Your task to perform on an android device: turn notification dots on Image 0: 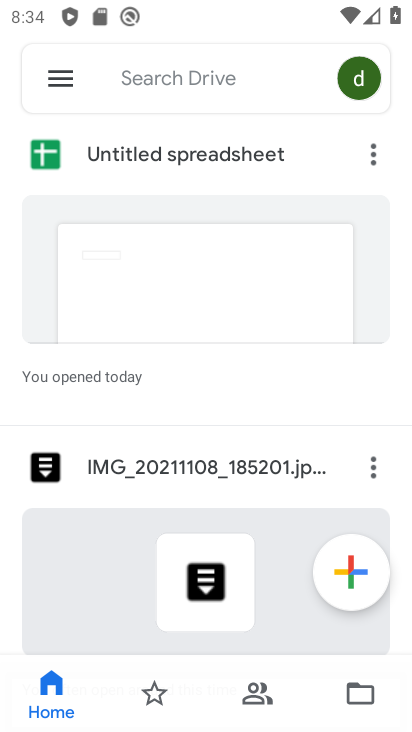
Step 0: press home button
Your task to perform on an android device: turn notification dots on Image 1: 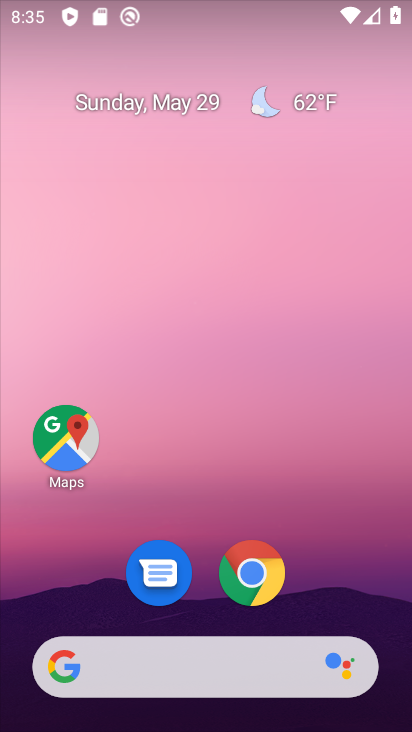
Step 1: drag from (353, 553) to (332, 195)
Your task to perform on an android device: turn notification dots on Image 2: 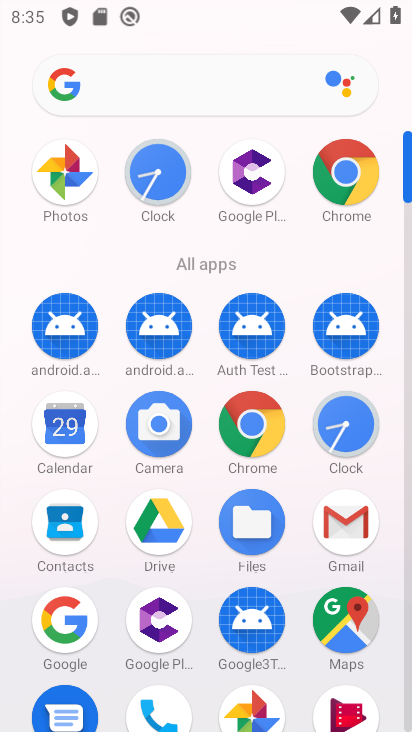
Step 2: drag from (203, 685) to (302, 21)
Your task to perform on an android device: turn notification dots on Image 3: 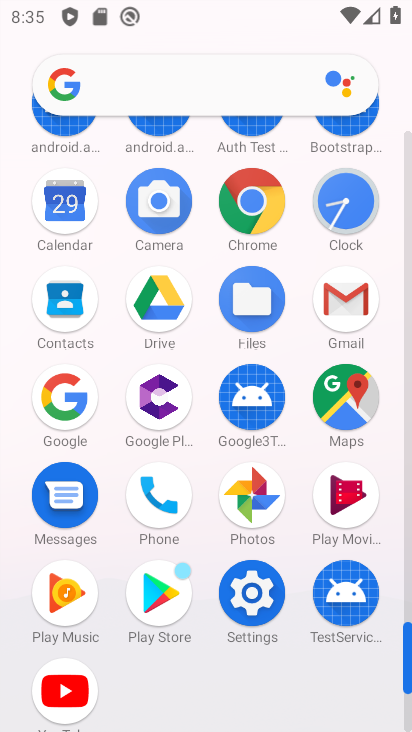
Step 3: click (253, 601)
Your task to perform on an android device: turn notification dots on Image 4: 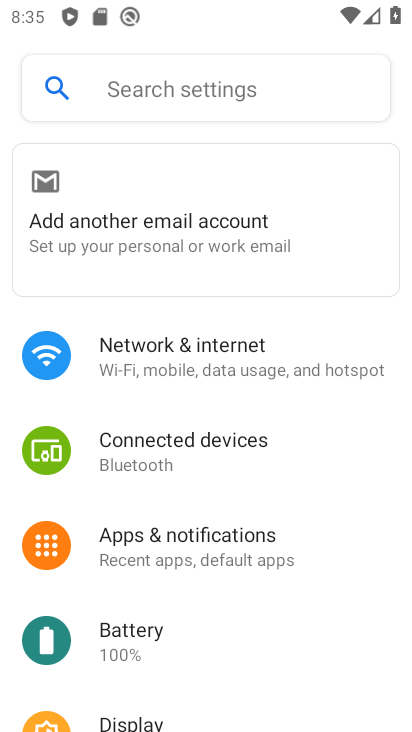
Step 4: drag from (318, 686) to (249, 92)
Your task to perform on an android device: turn notification dots on Image 5: 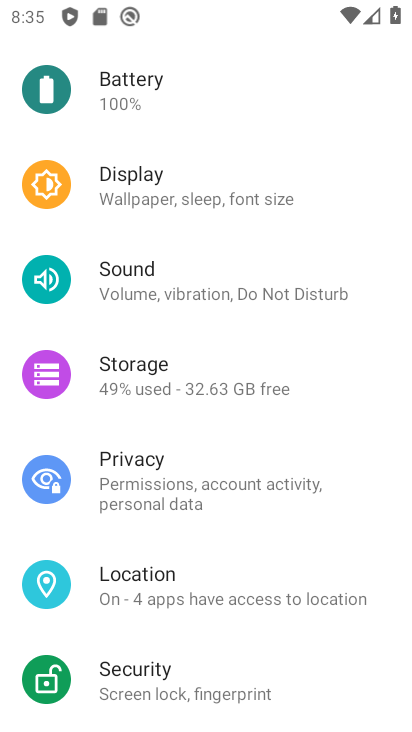
Step 5: drag from (301, 122) to (303, 397)
Your task to perform on an android device: turn notification dots on Image 6: 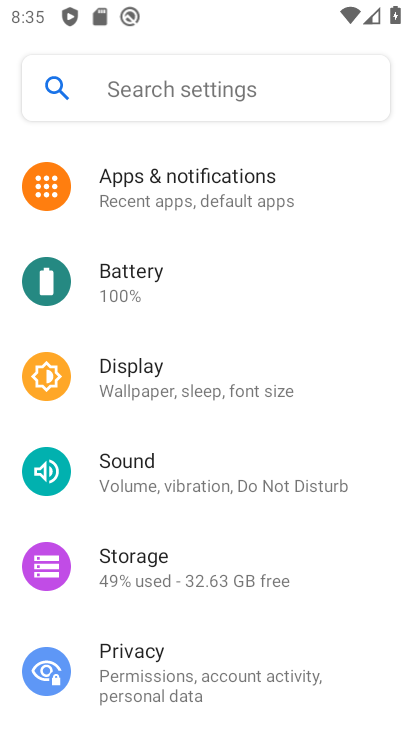
Step 6: click (206, 187)
Your task to perform on an android device: turn notification dots on Image 7: 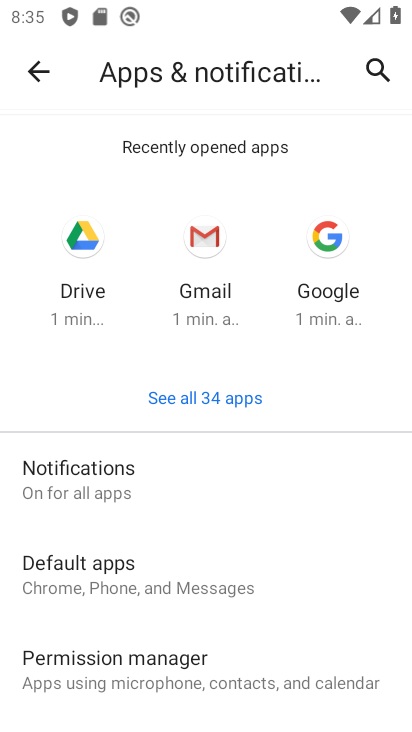
Step 7: click (168, 475)
Your task to perform on an android device: turn notification dots on Image 8: 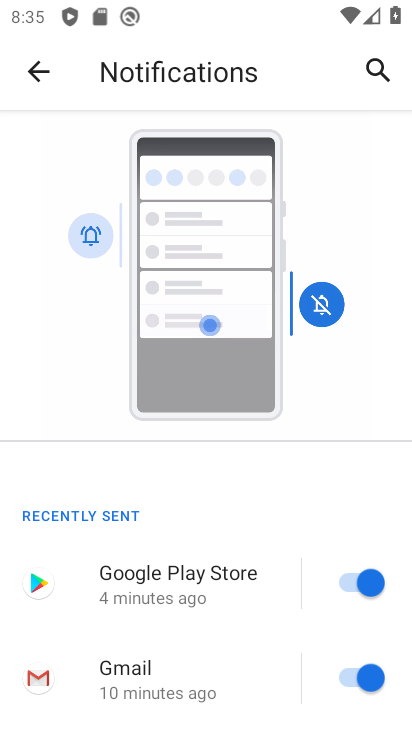
Step 8: drag from (268, 666) to (266, 169)
Your task to perform on an android device: turn notification dots on Image 9: 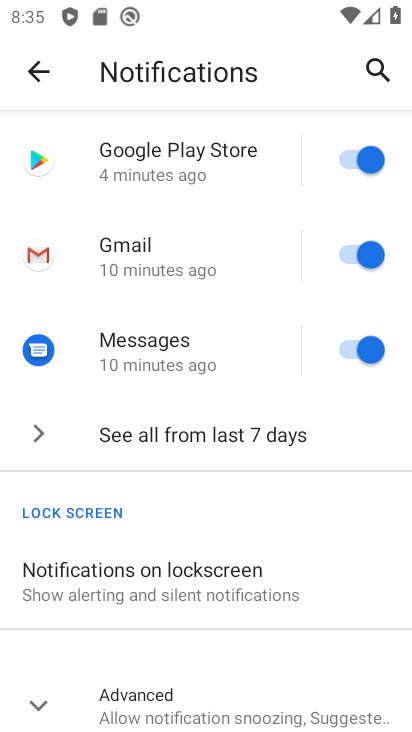
Step 9: click (37, 703)
Your task to perform on an android device: turn notification dots on Image 10: 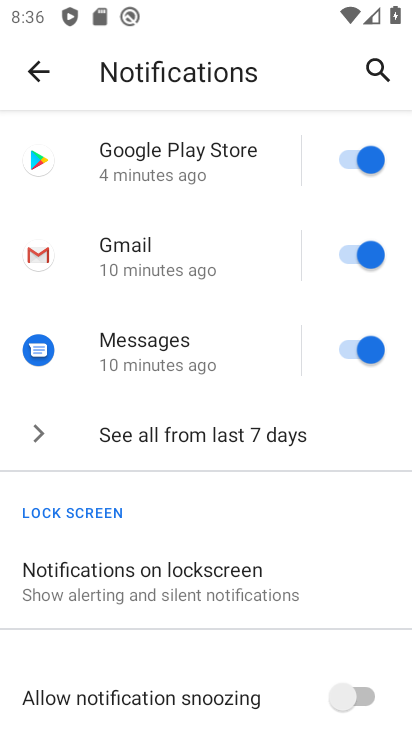
Step 10: task complete